Your task to perform on an android device: When is my next meeting? Image 0: 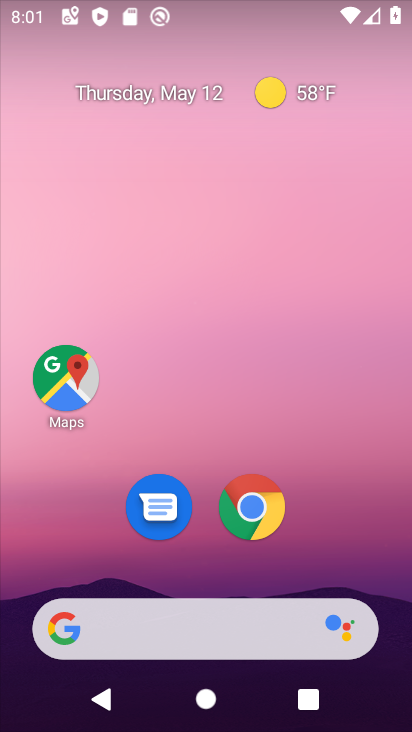
Step 0: drag from (200, 580) to (203, 218)
Your task to perform on an android device: When is my next meeting? Image 1: 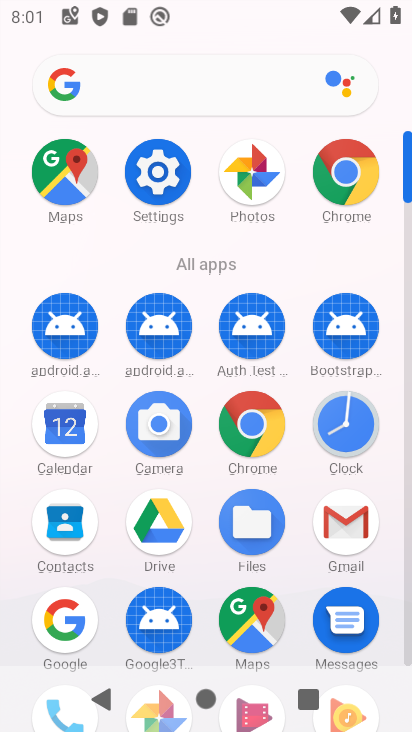
Step 1: click (67, 434)
Your task to perform on an android device: When is my next meeting? Image 2: 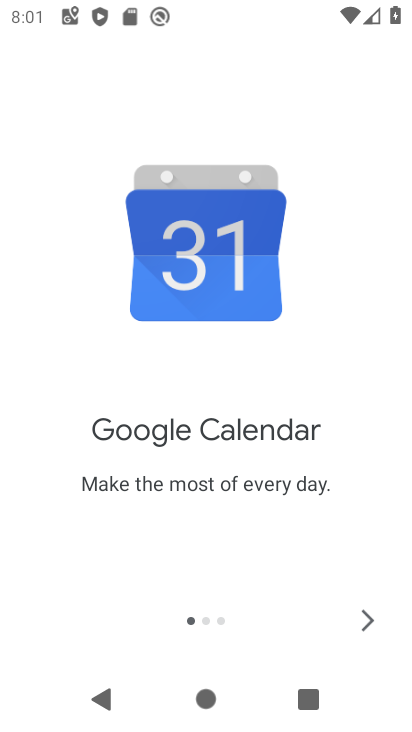
Step 2: click (379, 613)
Your task to perform on an android device: When is my next meeting? Image 3: 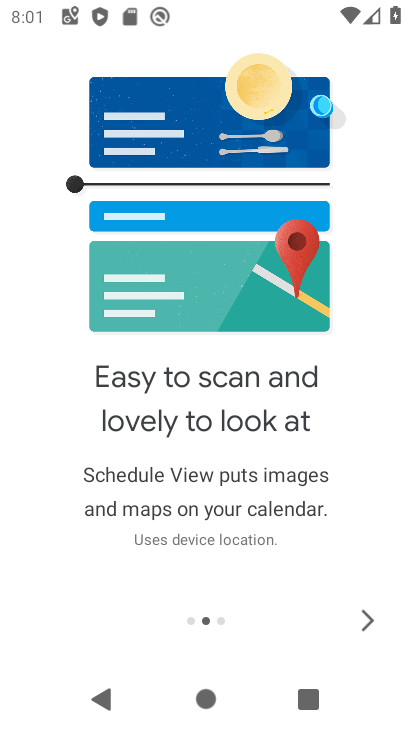
Step 3: click (368, 613)
Your task to perform on an android device: When is my next meeting? Image 4: 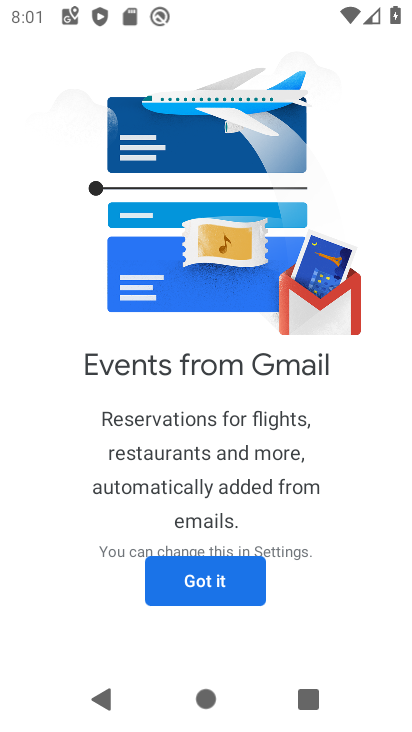
Step 4: click (229, 581)
Your task to perform on an android device: When is my next meeting? Image 5: 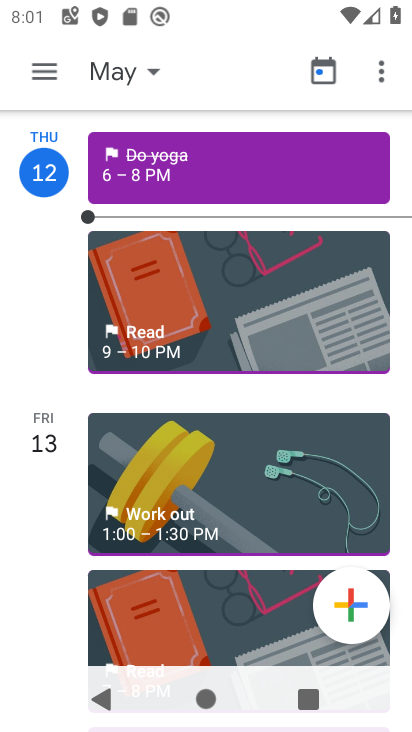
Step 5: click (136, 74)
Your task to perform on an android device: When is my next meeting? Image 6: 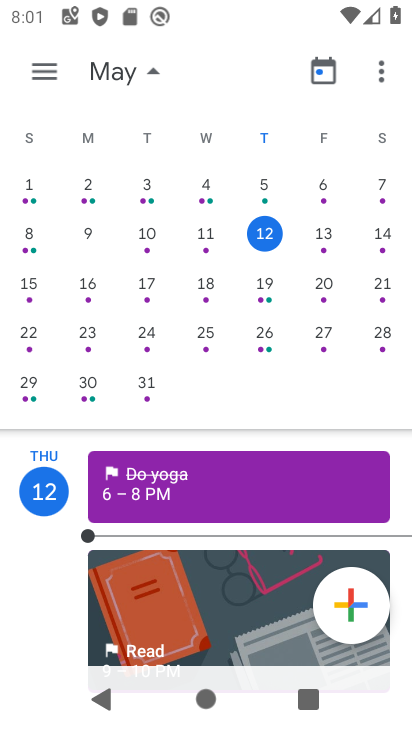
Step 6: task complete